Your task to perform on an android device: allow cookies in the chrome app Image 0: 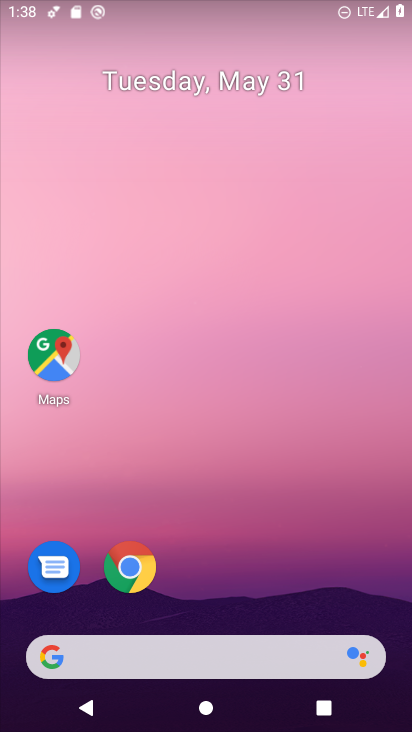
Step 0: click (143, 574)
Your task to perform on an android device: allow cookies in the chrome app Image 1: 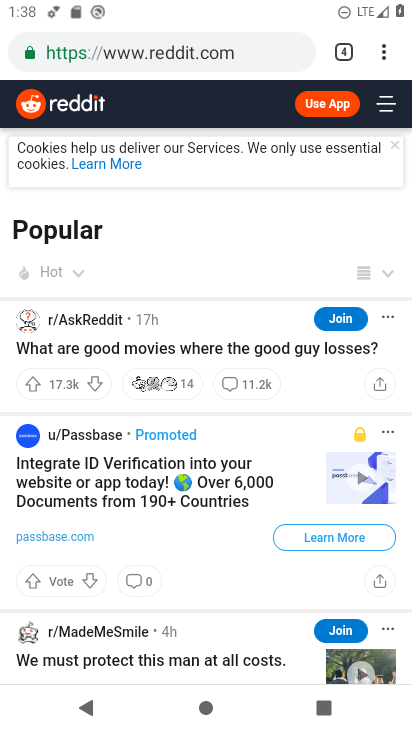
Step 1: click (384, 53)
Your task to perform on an android device: allow cookies in the chrome app Image 2: 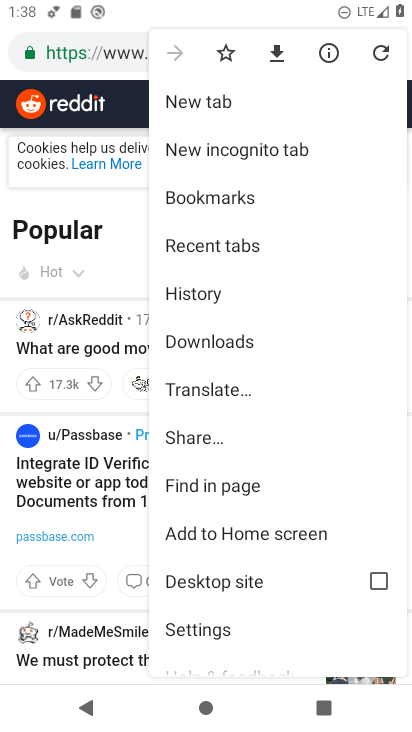
Step 2: click (269, 636)
Your task to perform on an android device: allow cookies in the chrome app Image 3: 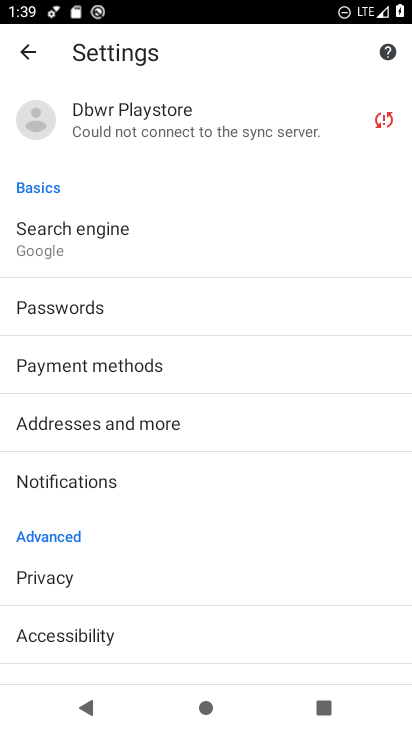
Step 3: press home button
Your task to perform on an android device: allow cookies in the chrome app Image 4: 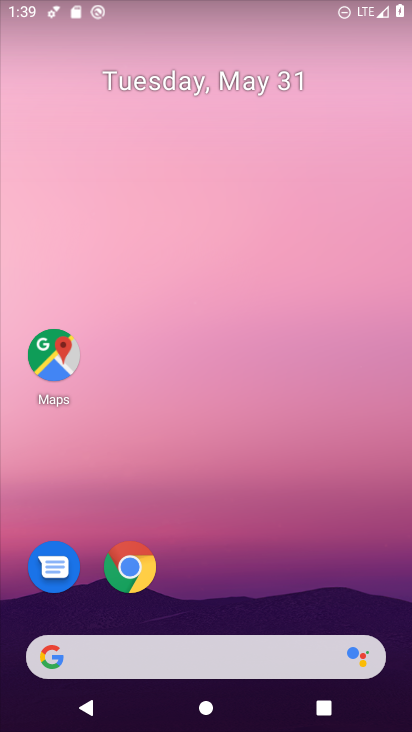
Step 4: click (124, 564)
Your task to perform on an android device: allow cookies in the chrome app Image 5: 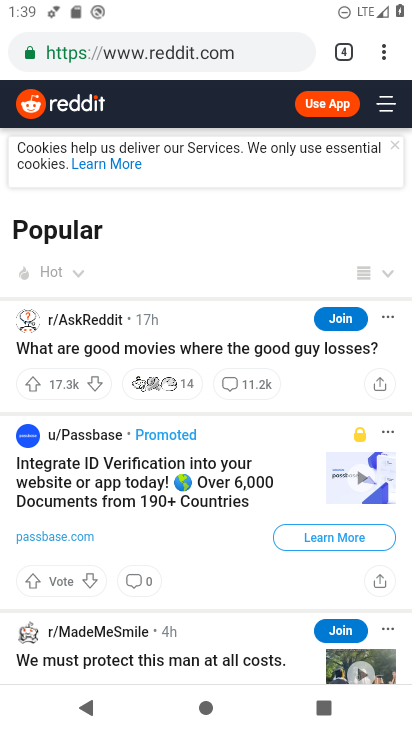
Step 5: click (387, 50)
Your task to perform on an android device: allow cookies in the chrome app Image 6: 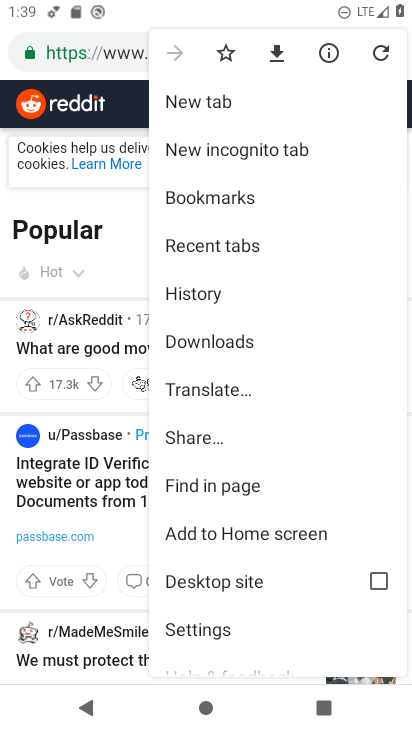
Step 6: click (221, 616)
Your task to perform on an android device: allow cookies in the chrome app Image 7: 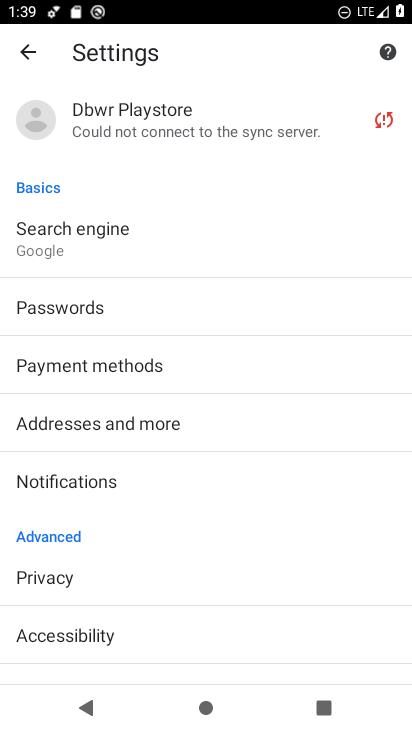
Step 7: drag from (171, 631) to (180, 357)
Your task to perform on an android device: allow cookies in the chrome app Image 8: 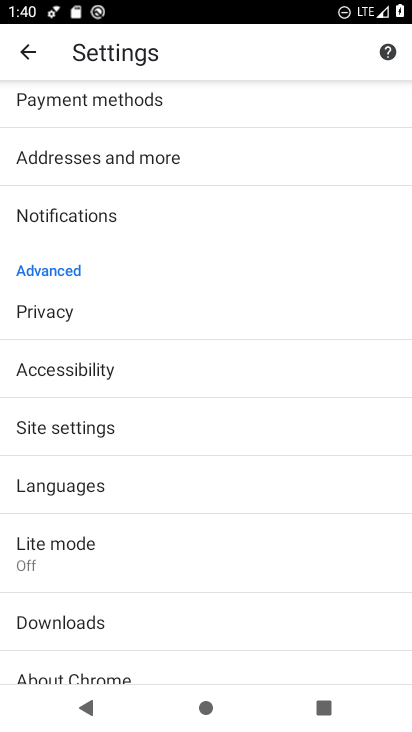
Step 8: click (107, 414)
Your task to perform on an android device: allow cookies in the chrome app Image 9: 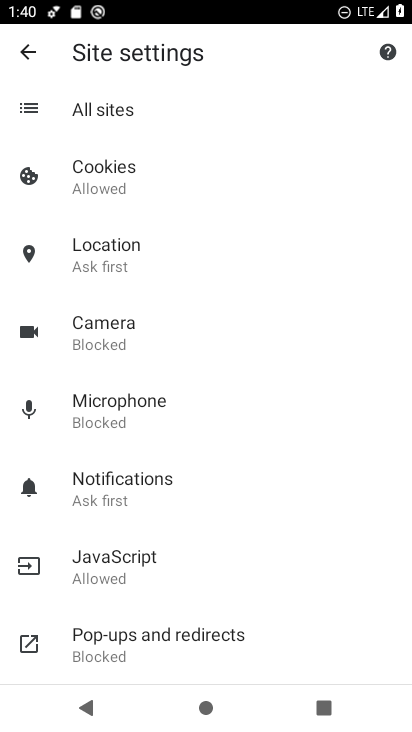
Step 9: click (148, 176)
Your task to perform on an android device: allow cookies in the chrome app Image 10: 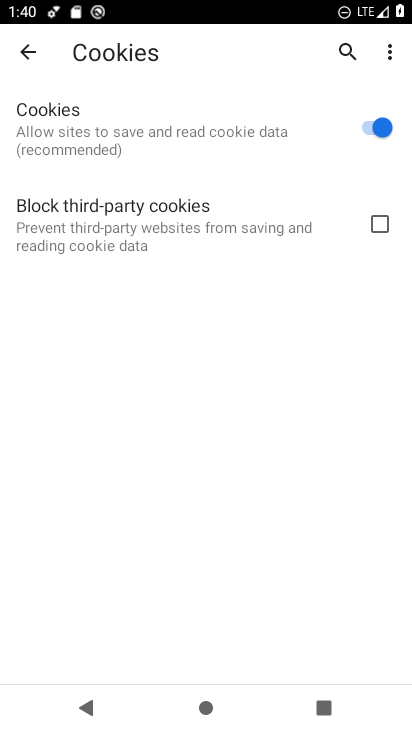
Step 10: task complete